Your task to perform on an android device: allow notifications from all sites in the chrome app Image 0: 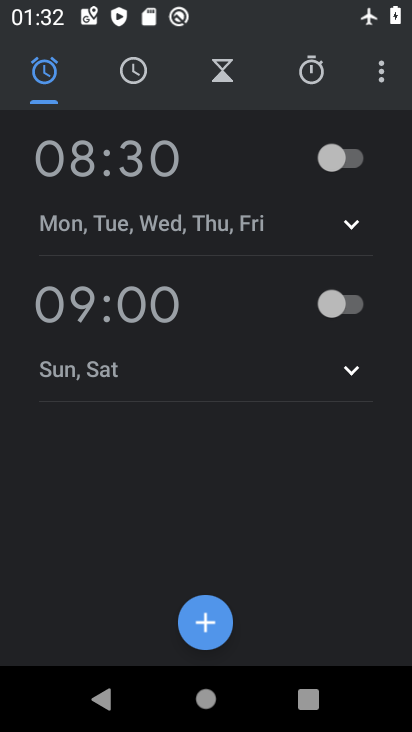
Step 0: press home button
Your task to perform on an android device: allow notifications from all sites in the chrome app Image 1: 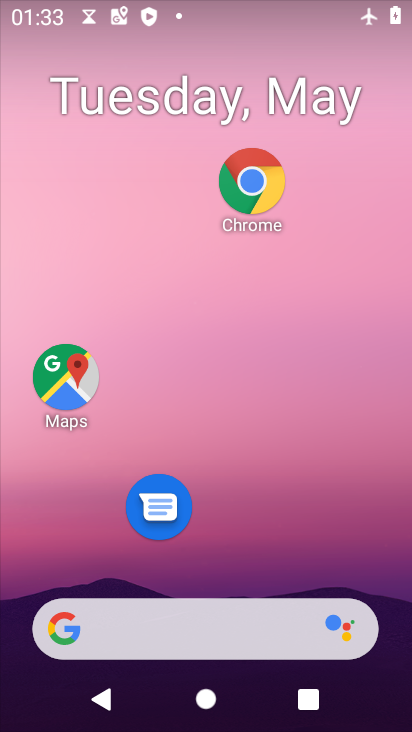
Step 1: drag from (318, 534) to (330, 226)
Your task to perform on an android device: allow notifications from all sites in the chrome app Image 2: 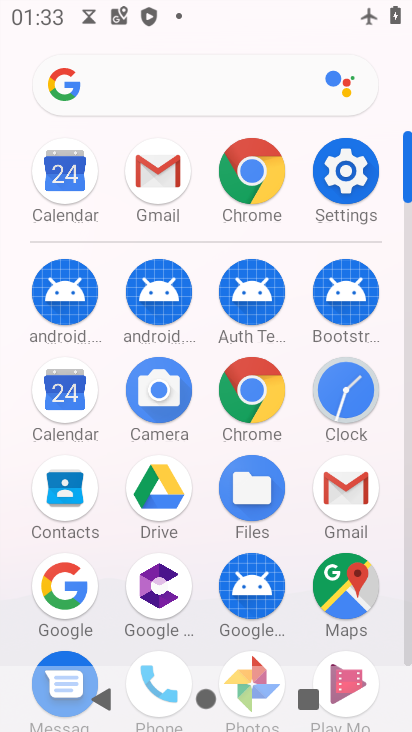
Step 2: click (244, 166)
Your task to perform on an android device: allow notifications from all sites in the chrome app Image 3: 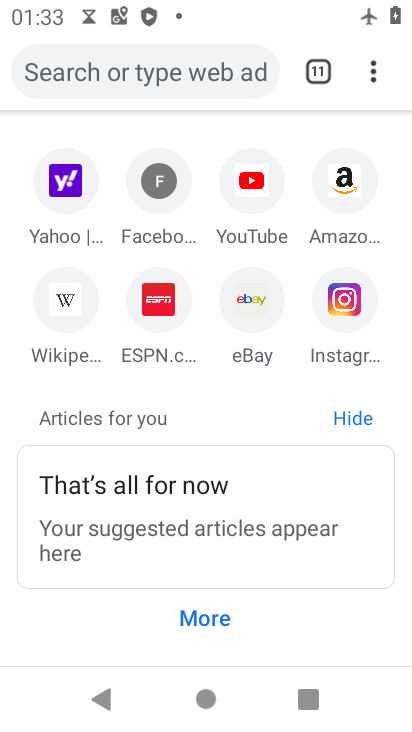
Step 3: click (365, 66)
Your task to perform on an android device: allow notifications from all sites in the chrome app Image 4: 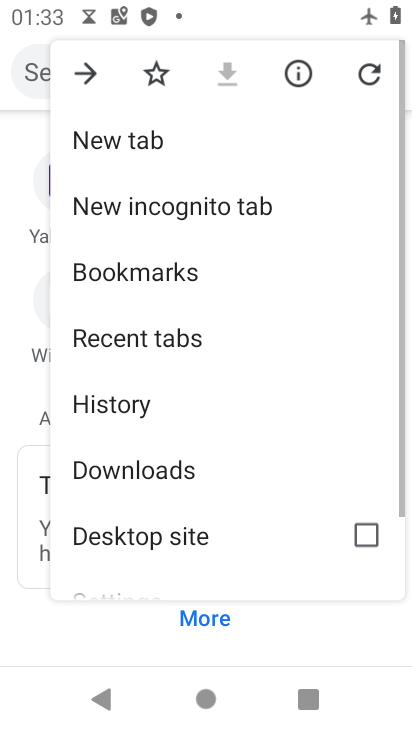
Step 4: drag from (214, 453) to (272, 160)
Your task to perform on an android device: allow notifications from all sites in the chrome app Image 5: 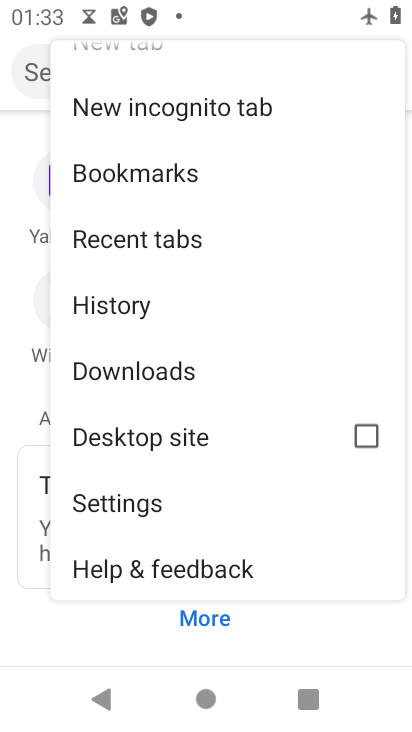
Step 5: click (171, 504)
Your task to perform on an android device: allow notifications from all sites in the chrome app Image 6: 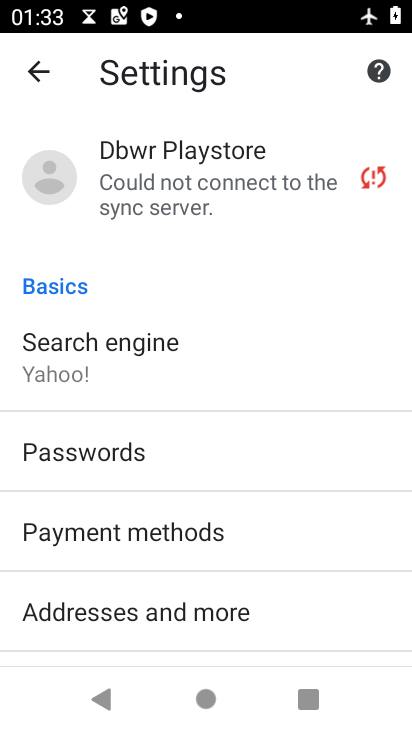
Step 6: drag from (242, 579) to (261, 168)
Your task to perform on an android device: allow notifications from all sites in the chrome app Image 7: 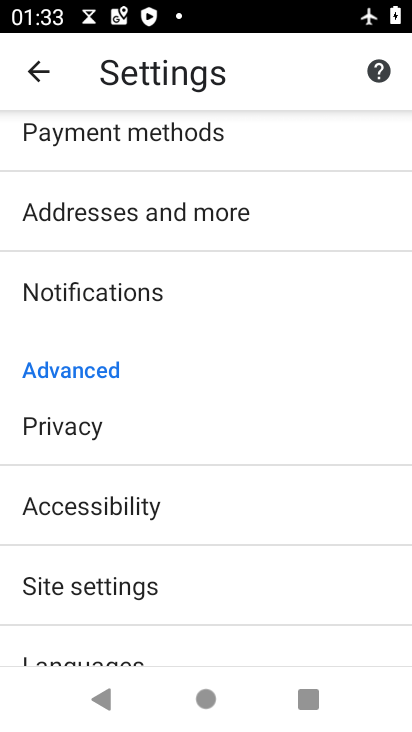
Step 7: drag from (213, 536) to (257, 138)
Your task to perform on an android device: allow notifications from all sites in the chrome app Image 8: 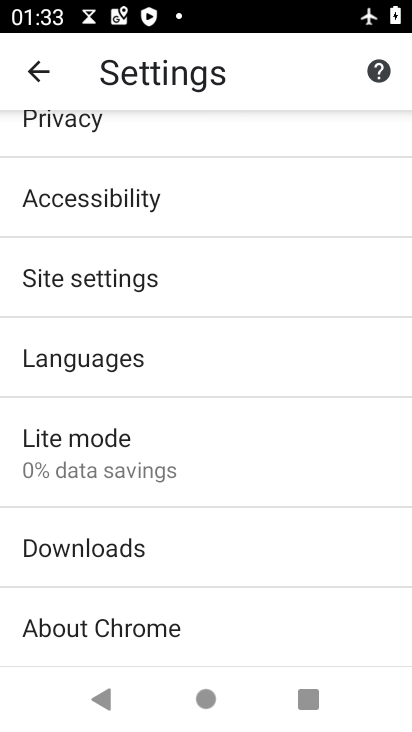
Step 8: click (173, 276)
Your task to perform on an android device: allow notifications from all sites in the chrome app Image 9: 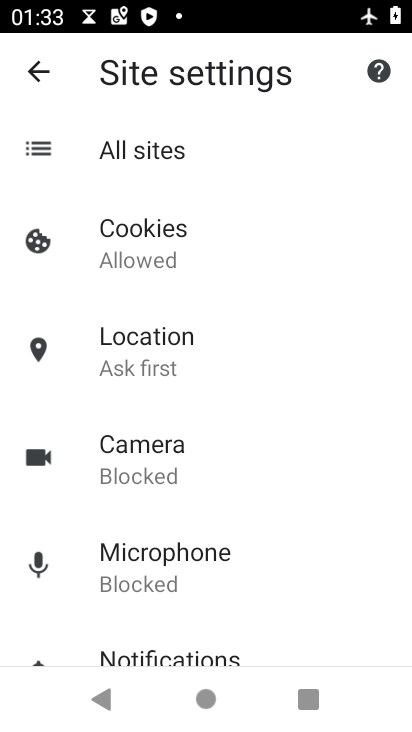
Step 9: click (242, 235)
Your task to perform on an android device: allow notifications from all sites in the chrome app Image 10: 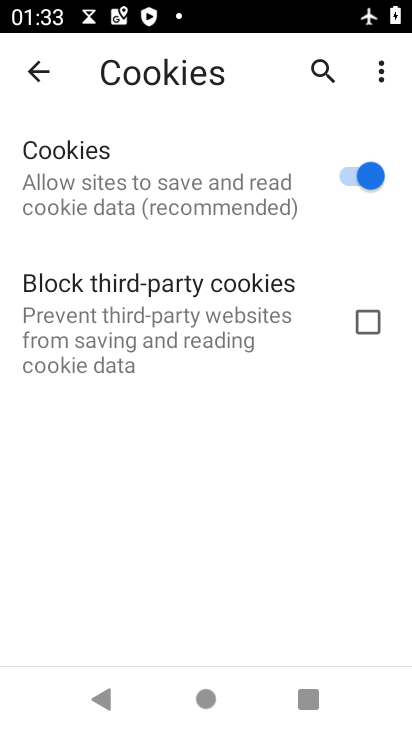
Step 10: click (25, 61)
Your task to perform on an android device: allow notifications from all sites in the chrome app Image 11: 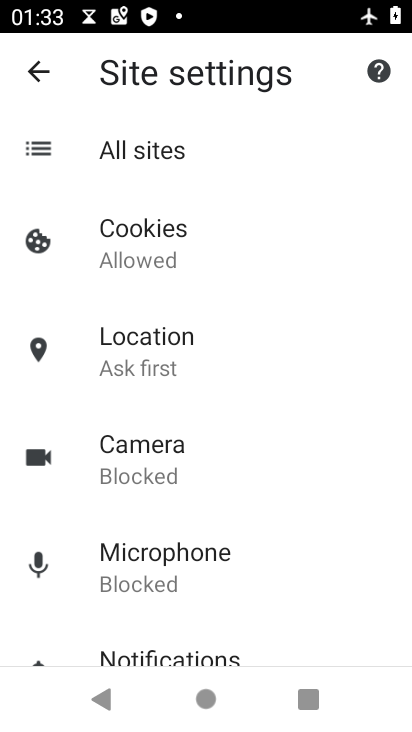
Step 11: click (166, 324)
Your task to perform on an android device: allow notifications from all sites in the chrome app Image 12: 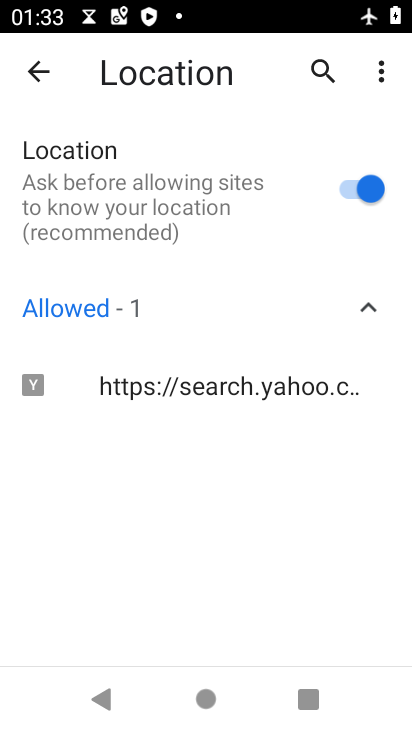
Step 12: click (39, 77)
Your task to perform on an android device: allow notifications from all sites in the chrome app Image 13: 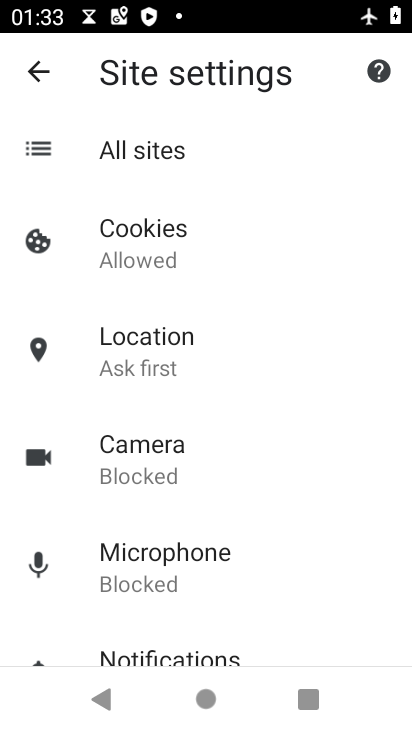
Step 13: click (167, 567)
Your task to perform on an android device: allow notifications from all sites in the chrome app Image 14: 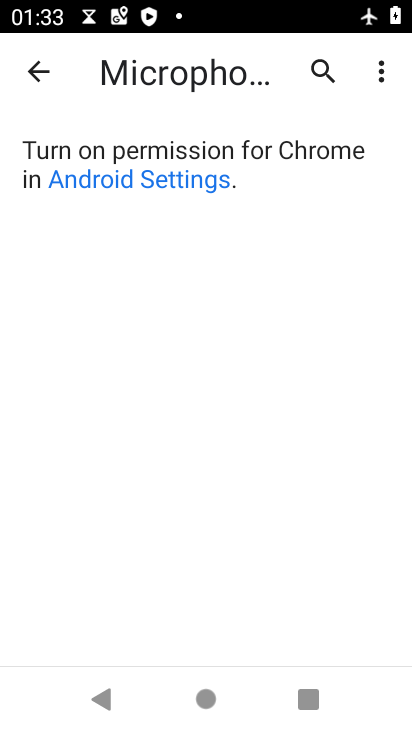
Step 14: click (56, 79)
Your task to perform on an android device: allow notifications from all sites in the chrome app Image 15: 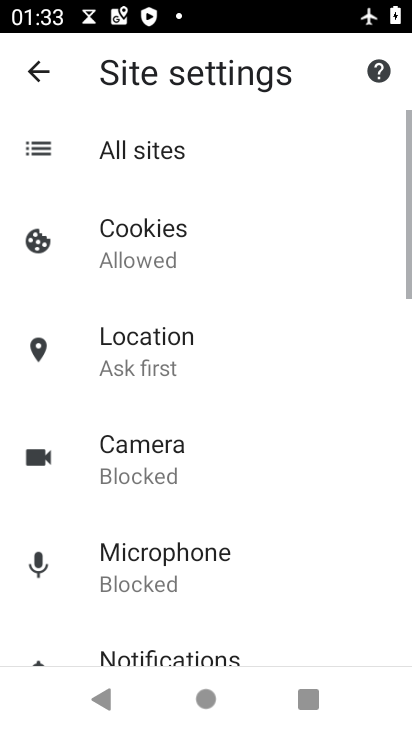
Step 15: task complete